Your task to perform on an android device: Toggle the flashlight Image 0: 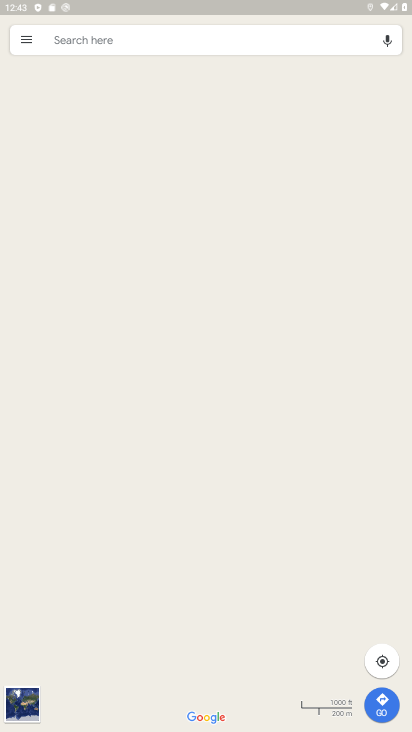
Step 0: click (364, 68)
Your task to perform on an android device: Toggle the flashlight Image 1: 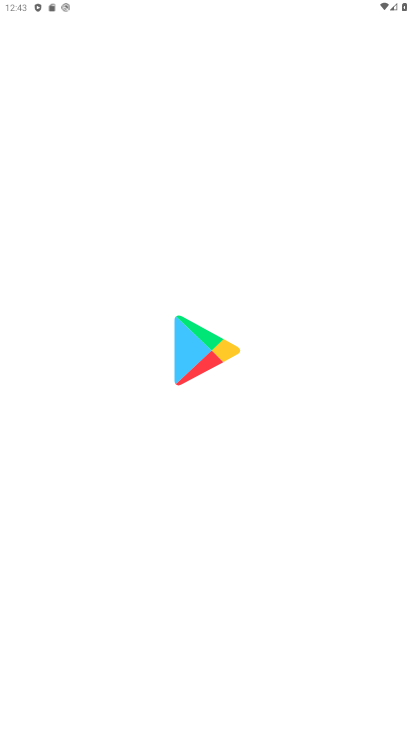
Step 1: task complete